Your task to perform on an android device: clear history in the chrome app Image 0: 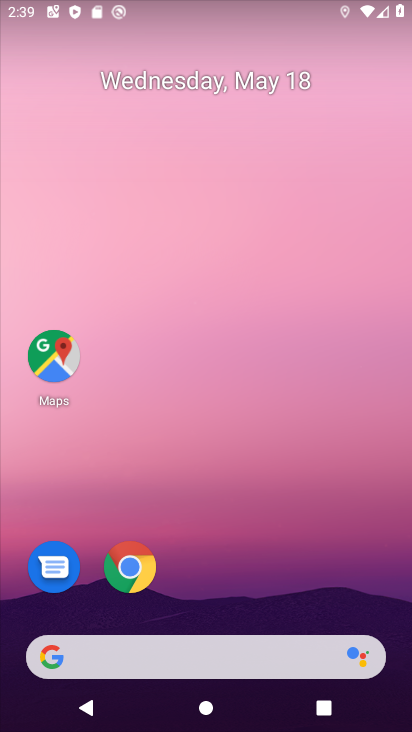
Step 0: click (140, 580)
Your task to perform on an android device: clear history in the chrome app Image 1: 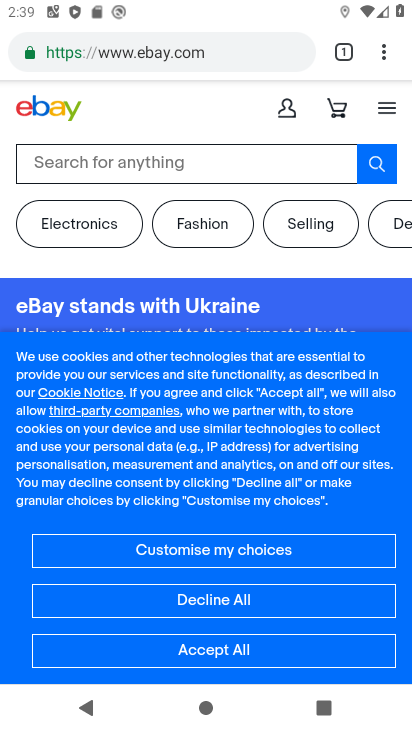
Step 1: click (380, 56)
Your task to perform on an android device: clear history in the chrome app Image 2: 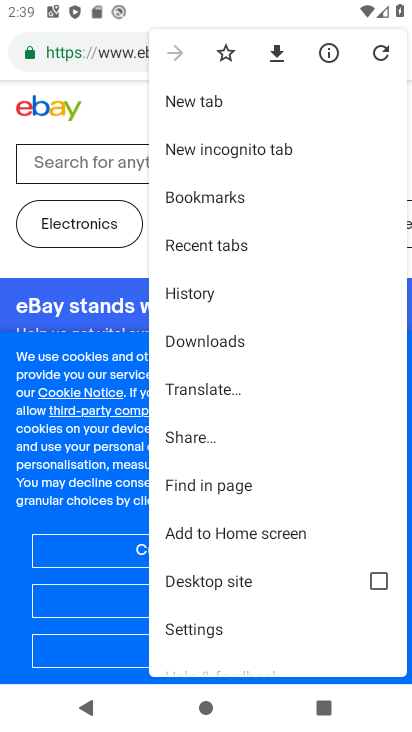
Step 2: click (210, 303)
Your task to perform on an android device: clear history in the chrome app Image 3: 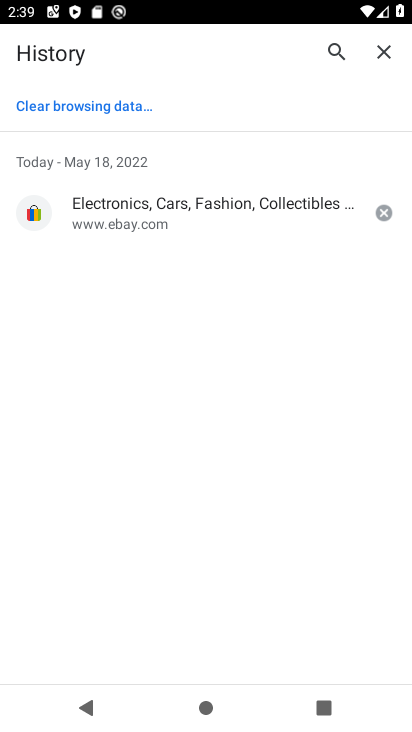
Step 3: click (85, 102)
Your task to perform on an android device: clear history in the chrome app Image 4: 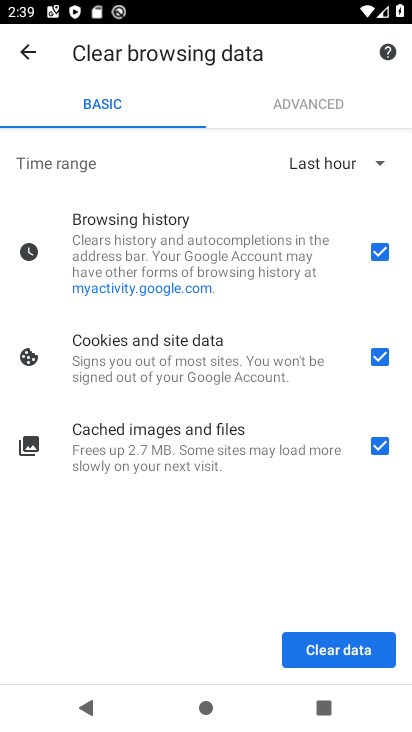
Step 4: click (336, 651)
Your task to perform on an android device: clear history in the chrome app Image 5: 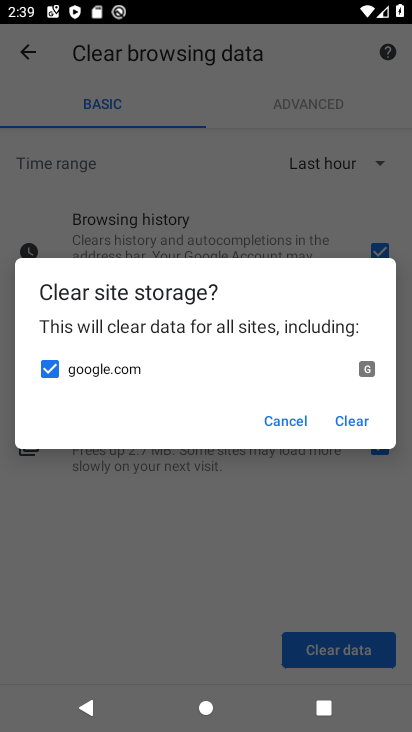
Step 5: click (355, 427)
Your task to perform on an android device: clear history in the chrome app Image 6: 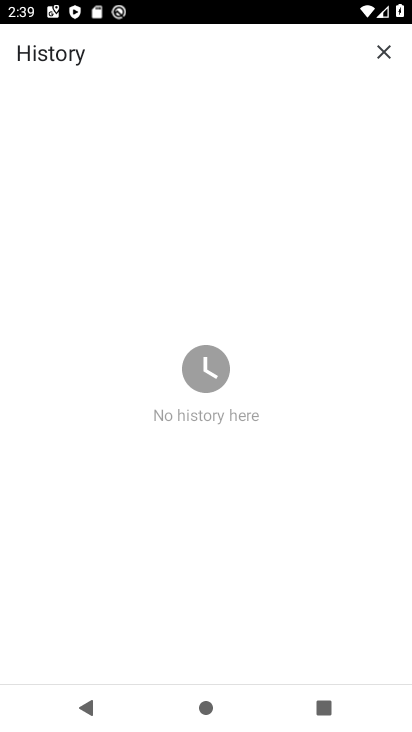
Step 6: task complete